Your task to perform on an android device: Search for sushi restaurants on Maps Image 0: 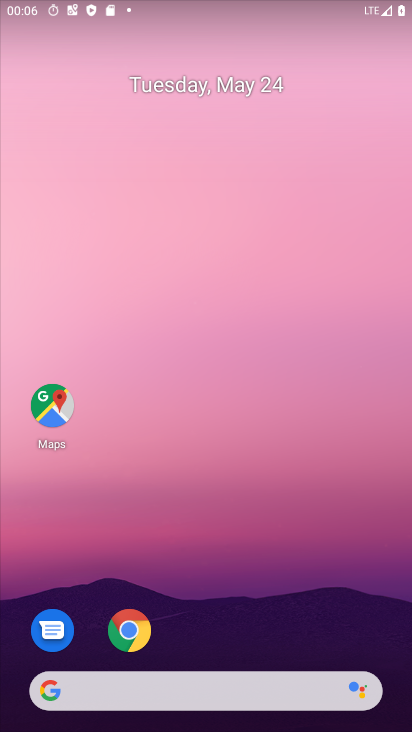
Step 0: click (46, 405)
Your task to perform on an android device: Search for sushi restaurants on Maps Image 1: 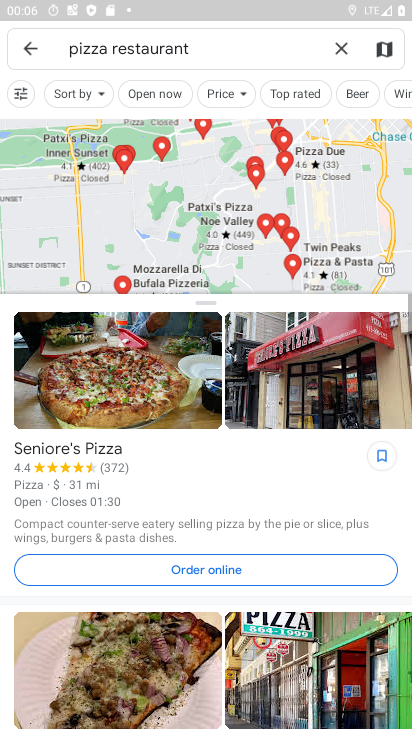
Step 1: click (342, 43)
Your task to perform on an android device: Search for sushi restaurants on Maps Image 2: 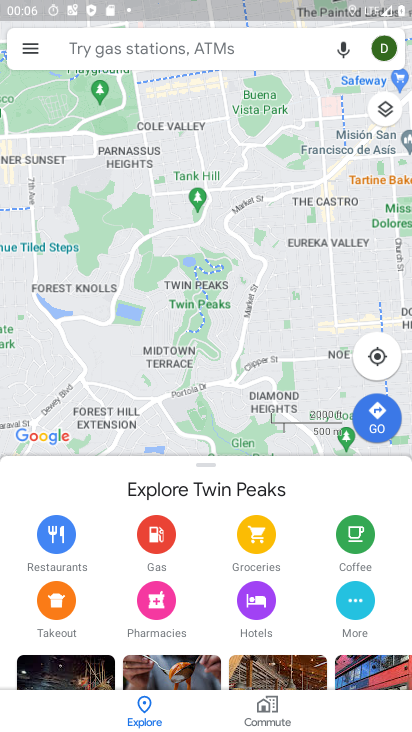
Step 2: click (81, 44)
Your task to perform on an android device: Search for sushi restaurants on Maps Image 3: 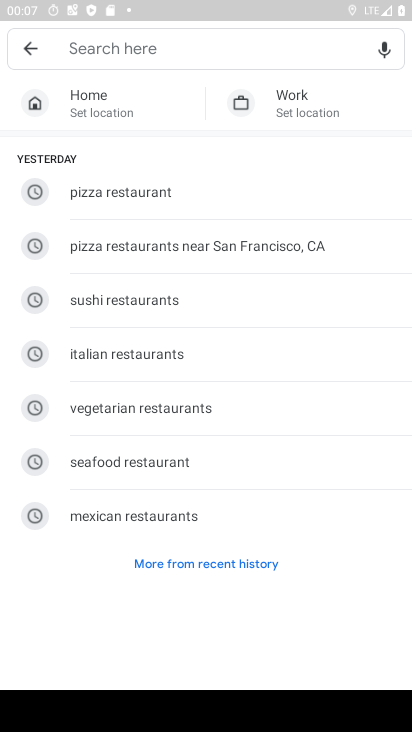
Step 3: type "sushi restaurants"
Your task to perform on an android device: Search for sushi restaurants on Maps Image 4: 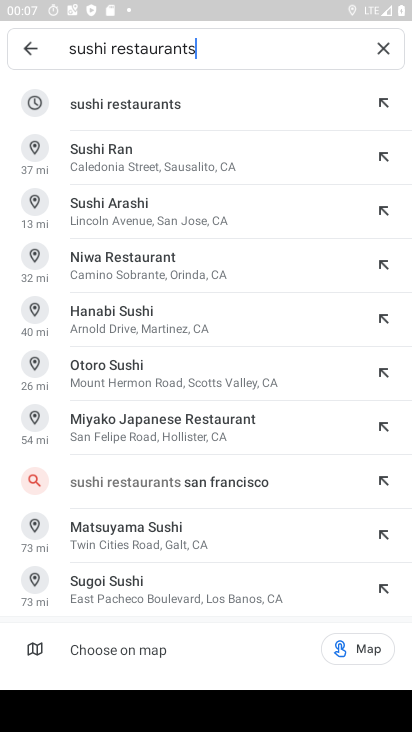
Step 4: click (98, 108)
Your task to perform on an android device: Search for sushi restaurants on Maps Image 5: 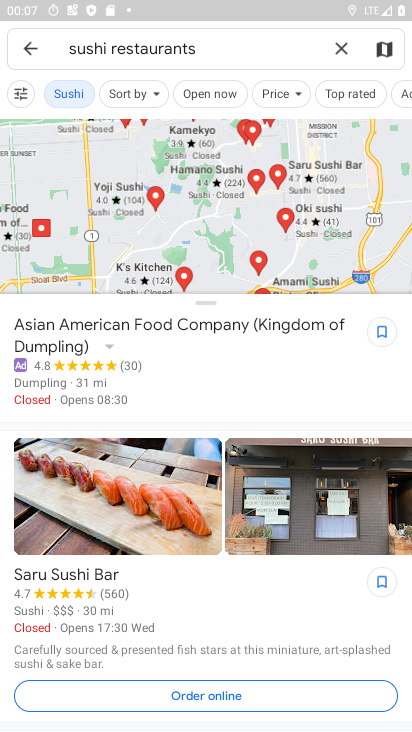
Step 5: task complete